Your task to perform on an android device: turn off priority inbox in the gmail app Image 0: 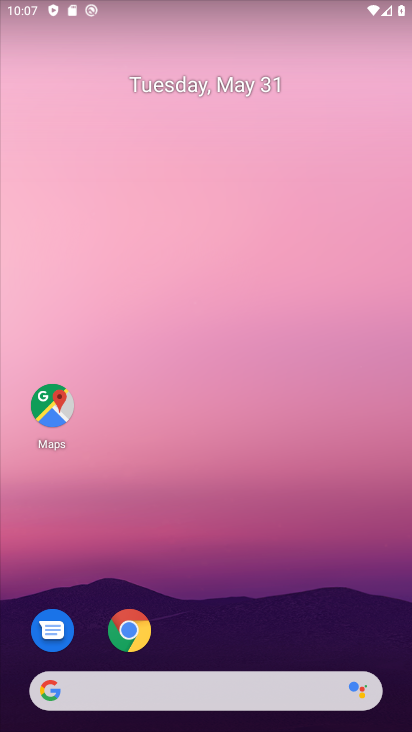
Step 0: drag from (286, 608) to (234, 2)
Your task to perform on an android device: turn off priority inbox in the gmail app Image 1: 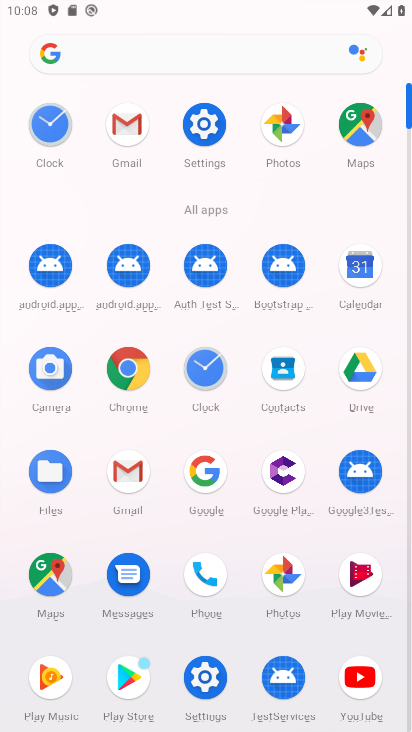
Step 1: click (130, 125)
Your task to perform on an android device: turn off priority inbox in the gmail app Image 2: 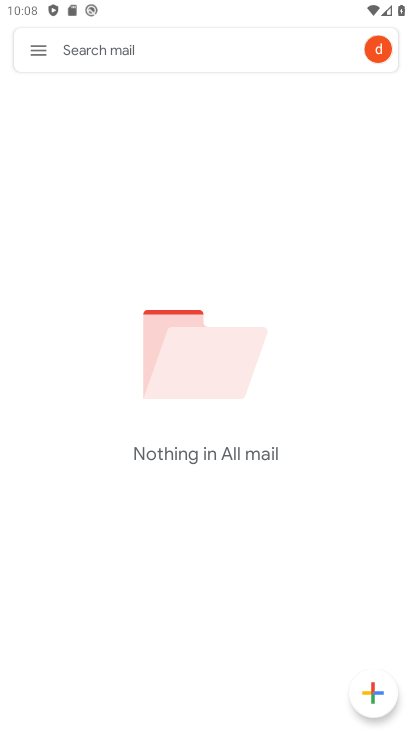
Step 2: click (39, 50)
Your task to perform on an android device: turn off priority inbox in the gmail app Image 3: 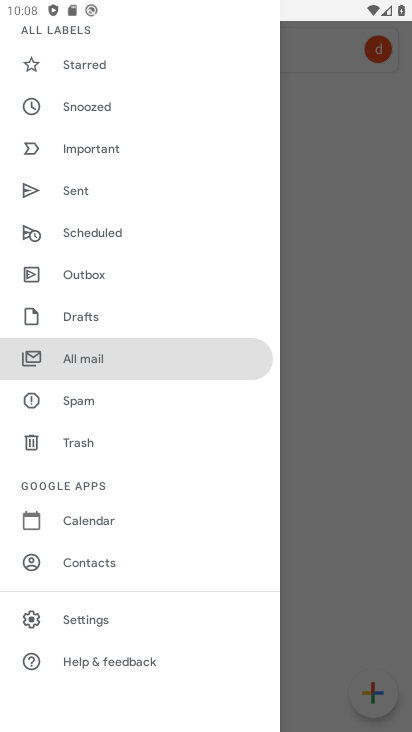
Step 3: click (89, 616)
Your task to perform on an android device: turn off priority inbox in the gmail app Image 4: 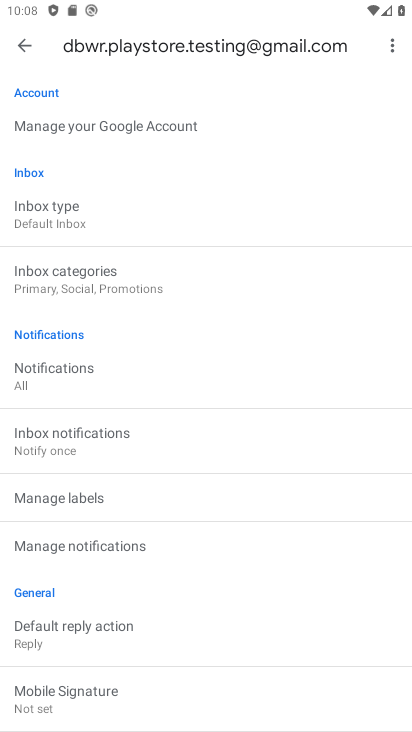
Step 4: click (92, 213)
Your task to perform on an android device: turn off priority inbox in the gmail app Image 5: 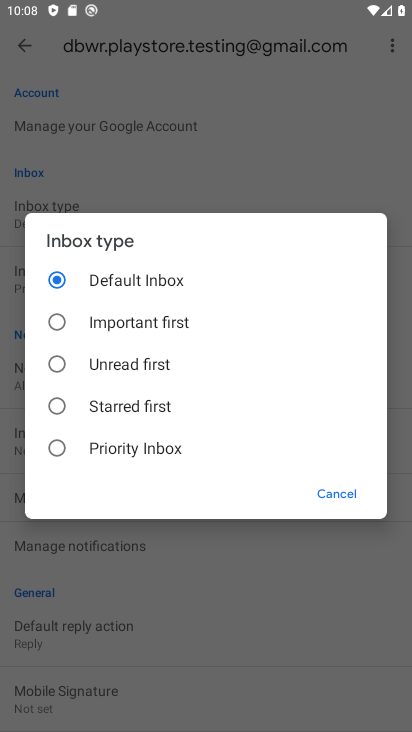
Step 5: task complete